Your task to perform on an android device: open device folders in google photos Image 0: 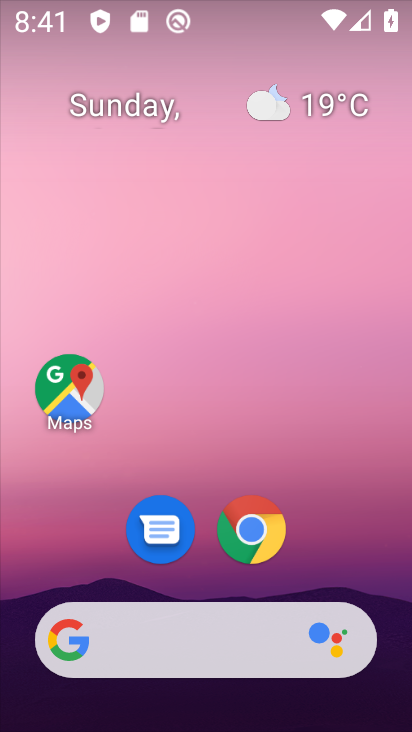
Step 0: drag from (81, 601) to (176, 139)
Your task to perform on an android device: open device folders in google photos Image 1: 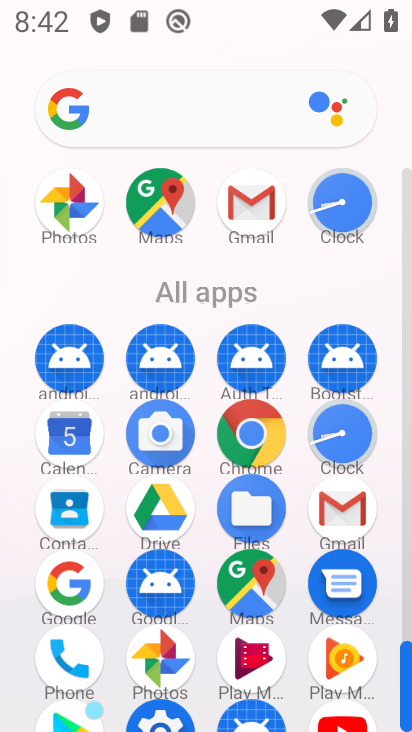
Step 1: click (153, 658)
Your task to perform on an android device: open device folders in google photos Image 2: 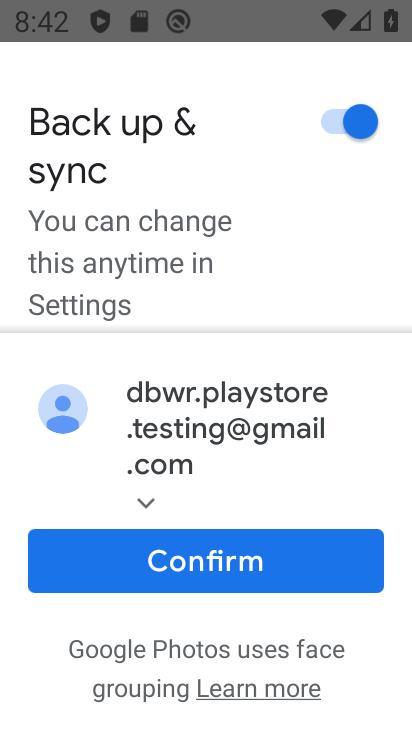
Step 2: click (252, 574)
Your task to perform on an android device: open device folders in google photos Image 3: 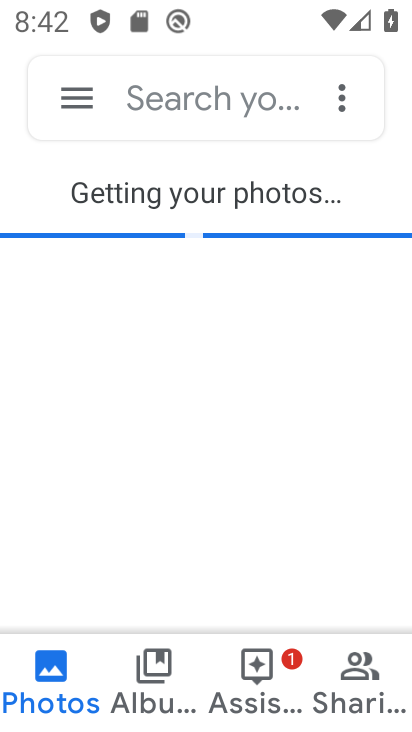
Step 3: click (77, 117)
Your task to perform on an android device: open device folders in google photos Image 4: 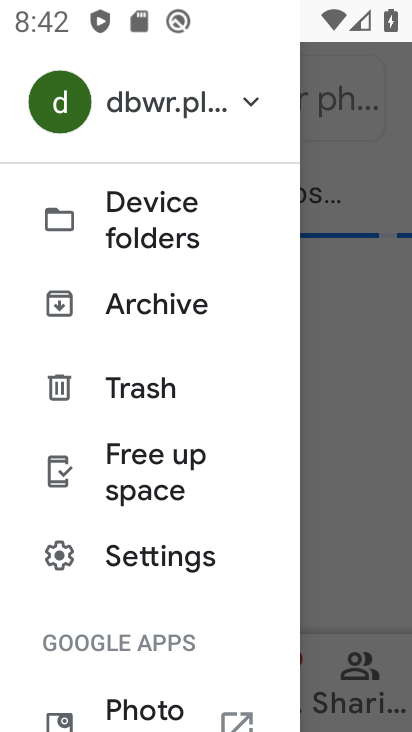
Step 4: click (123, 241)
Your task to perform on an android device: open device folders in google photos Image 5: 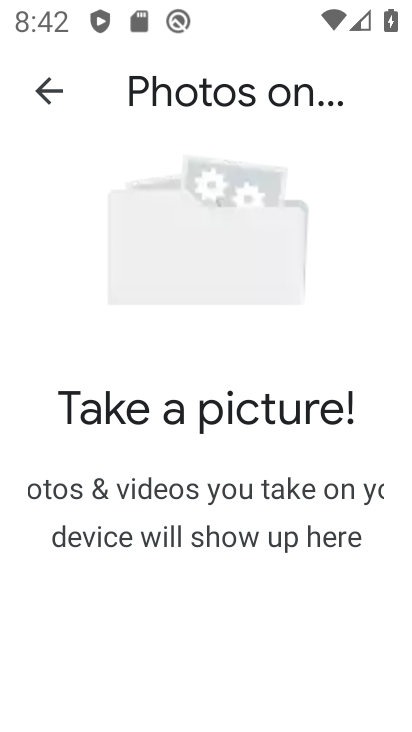
Step 5: task complete